Your task to perform on an android device: delete the emails in spam in the gmail app Image 0: 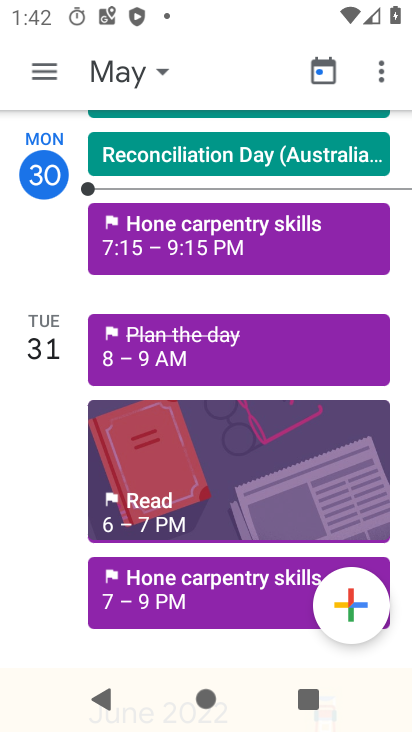
Step 0: click (325, 550)
Your task to perform on an android device: delete the emails in spam in the gmail app Image 1: 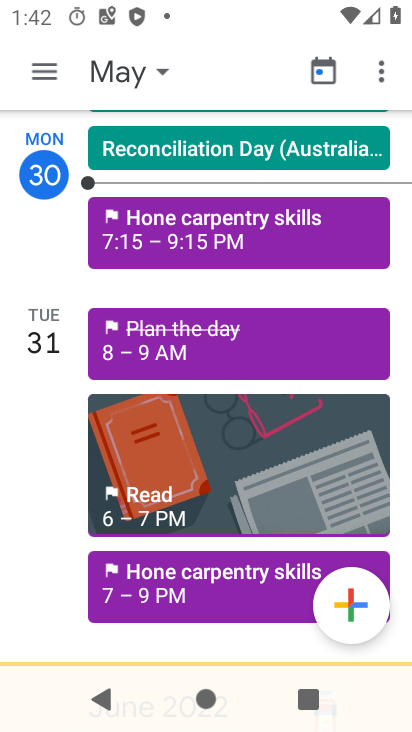
Step 1: press home button
Your task to perform on an android device: delete the emails in spam in the gmail app Image 2: 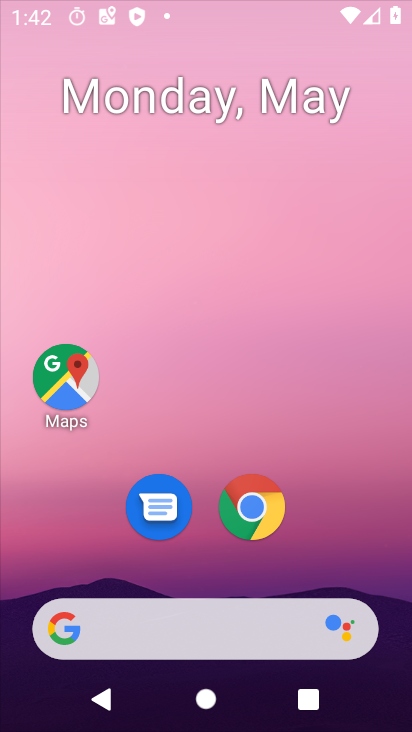
Step 2: drag from (345, 526) to (322, 200)
Your task to perform on an android device: delete the emails in spam in the gmail app Image 3: 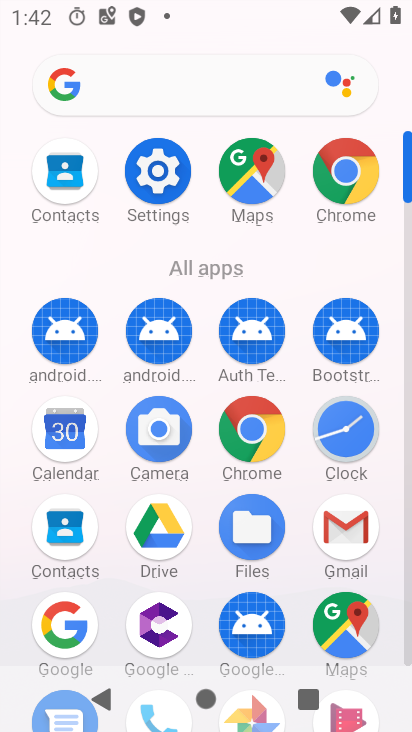
Step 3: click (366, 541)
Your task to perform on an android device: delete the emails in spam in the gmail app Image 4: 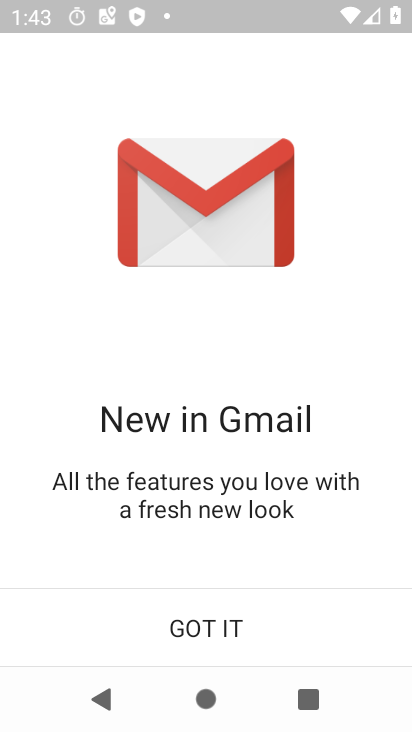
Step 4: click (212, 641)
Your task to perform on an android device: delete the emails in spam in the gmail app Image 5: 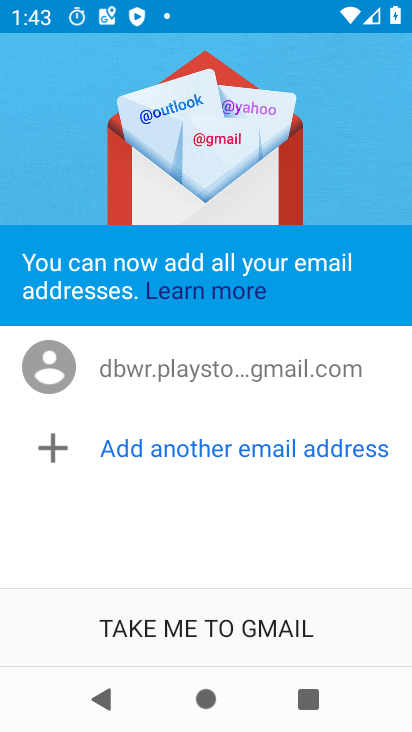
Step 5: click (227, 622)
Your task to perform on an android device: delete the emails in spam in the gmail app Image 6: 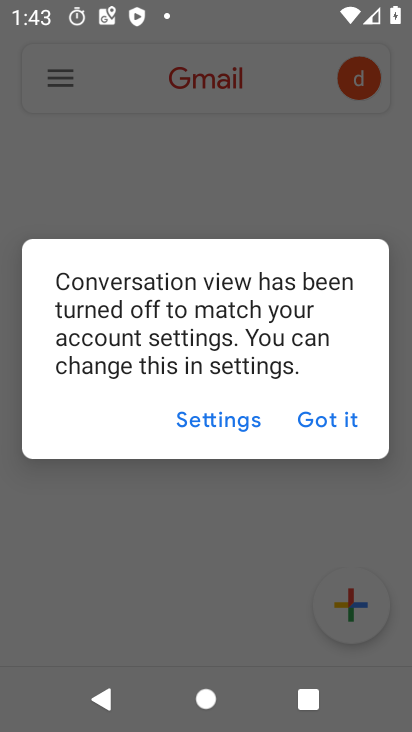
Step 6: click (335, 430)
Your task to perform on an android device: delete the emails in spam in the gmail app Image 7: 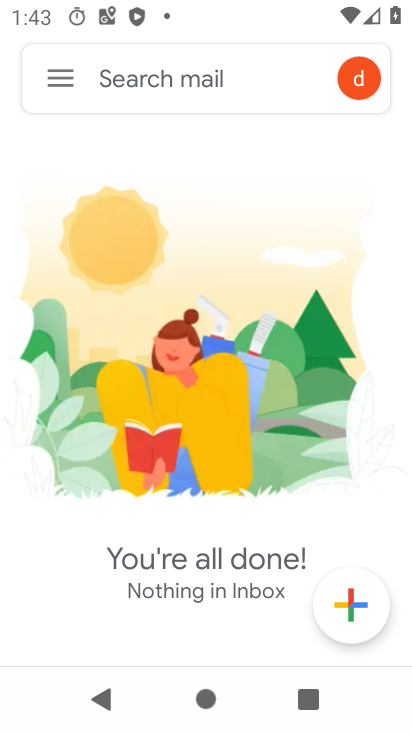
Step 7: click (69, 78)
Your task to perform on an android device: delete the emails in spam in the gmail app Image 8: 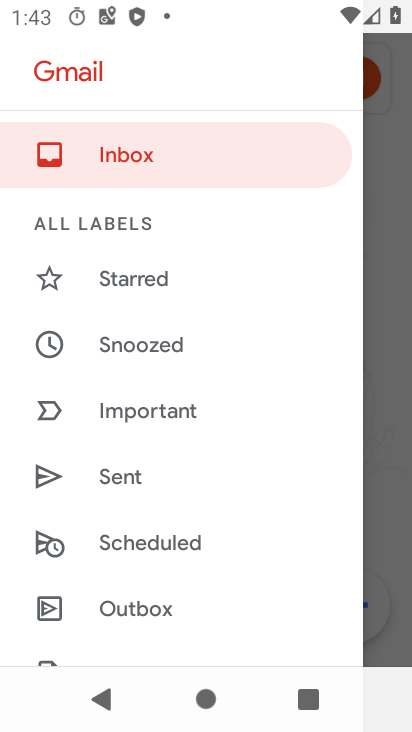
Step 8: drag from (193, 544) to (217, 239)
Your task to perform on an android device: delete the emails in spam in the gmail app Image 9: 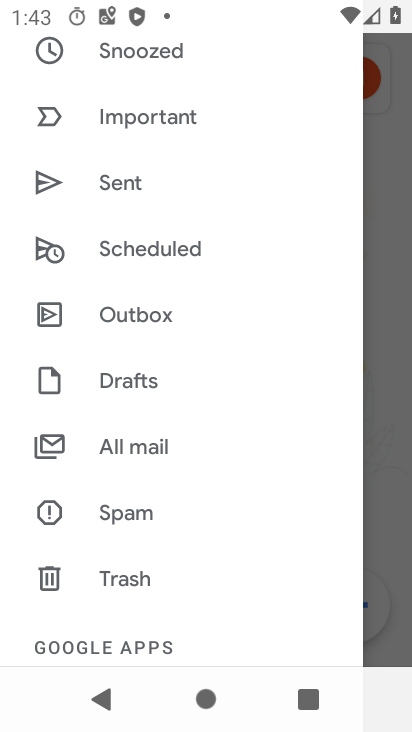
Step 9: click (139, 517)
Your task to perform on an android device: delete the emails in spam in the gmail app Image 10: 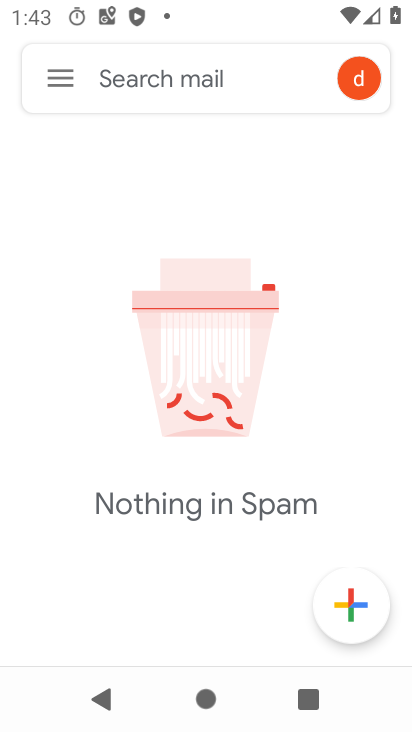
Step 10: click (61, 83)
Your task to perform on an android device: delete the emails in spam in the gmail app Image 11: 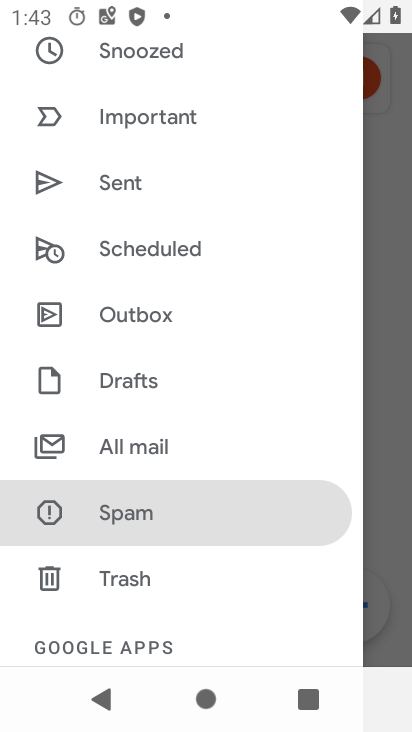
Step 11: task complete